Your task to perform on an android device: Open display settings Image 0: 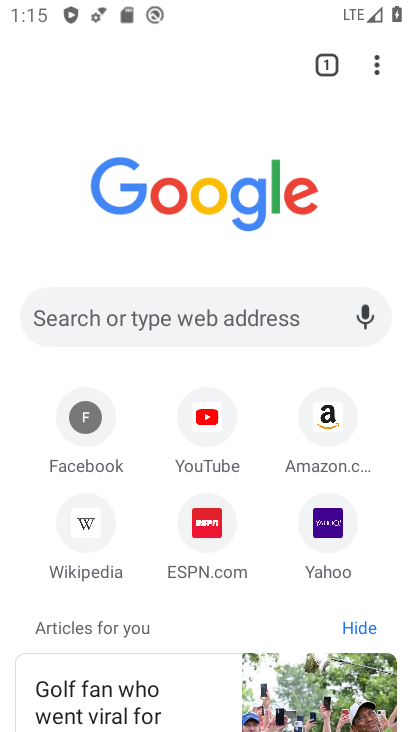
Step 0: press home button
Your task to perform on an android device: Open display settings Image 1: 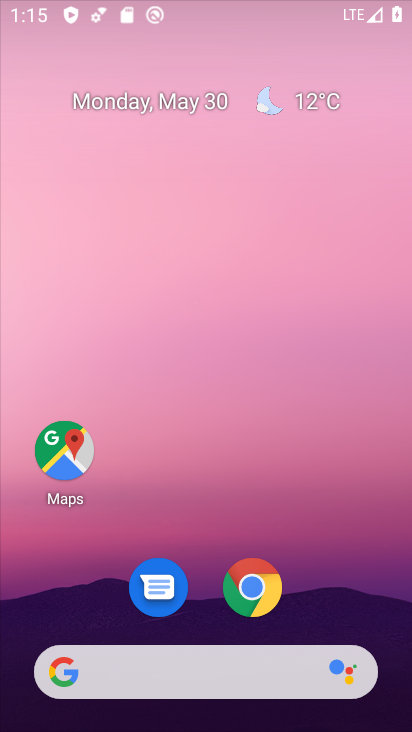
Step 1: drag from (348, 542) to (251, 46)
Your task to perform on an android device: Open display settings Image 2: 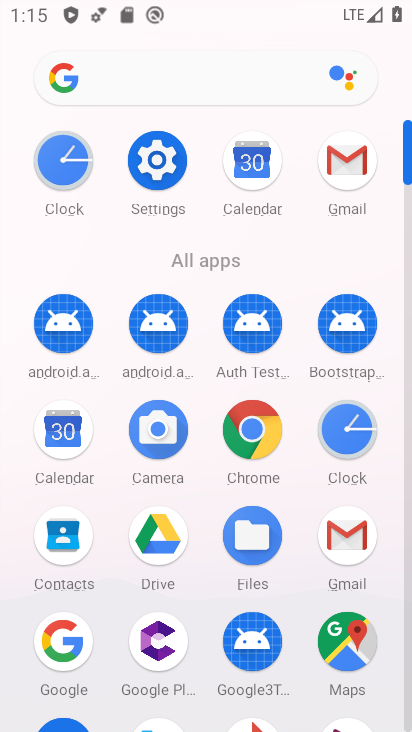
Step 2: click (157, 149)
Your task to perform on an android device: Open display settings Image 3: 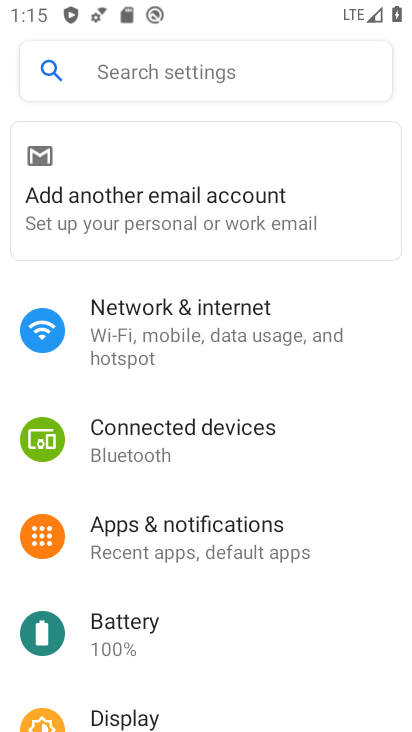
Step 3: click (198, 706)
Your task to perform on an android device: Open display settings Image 4: 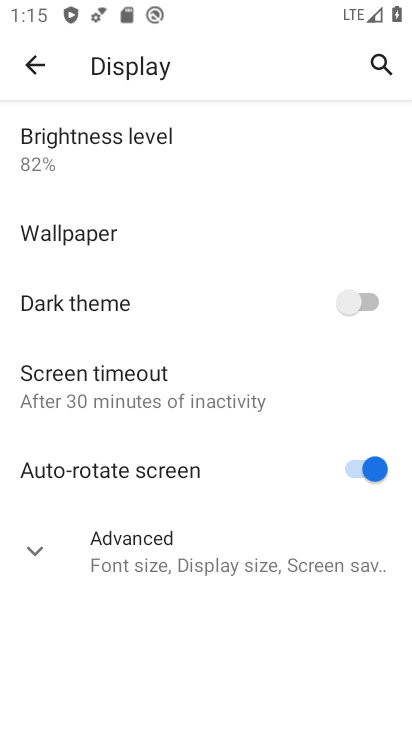
Step 4: task complete